Your task to perform on an android device: turn on improve location accuracy Image 0: 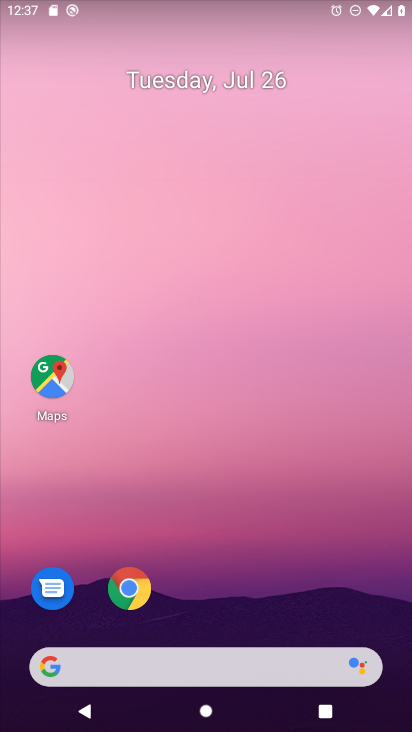
Step 0: drag from (262, 619) to (256, 63)
Your task to perform on an android device: turn on improve location accuracy Image 1: 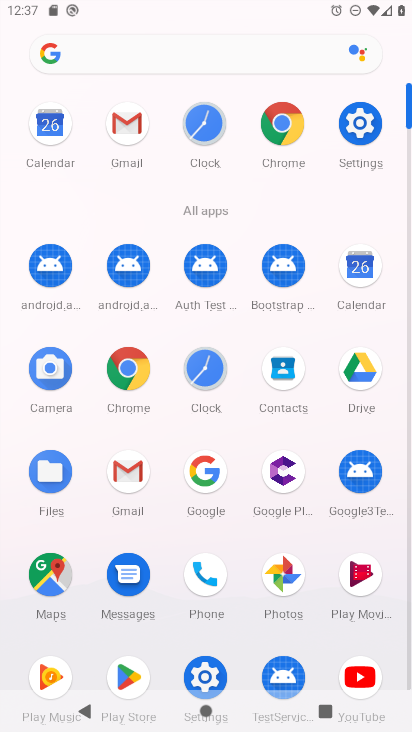
Step 1: click (355, 127)
Your task to perform on an android device: turn on improve location accuracy Image 2: 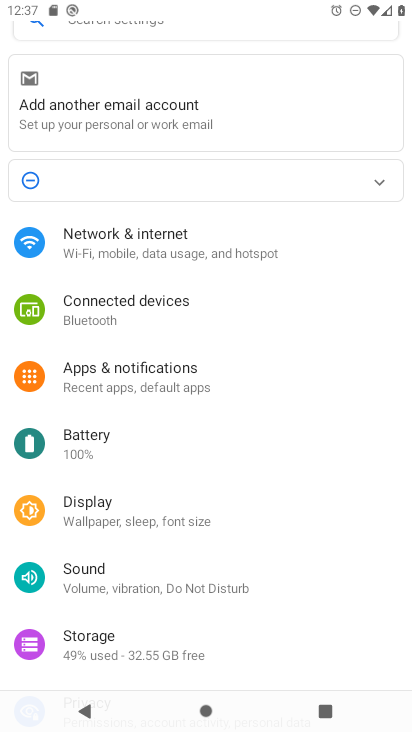
Step 2: drag from (203, 611) to (174, 218)
Your task to perform on an android device: turn on improve location accuracy Image 3: 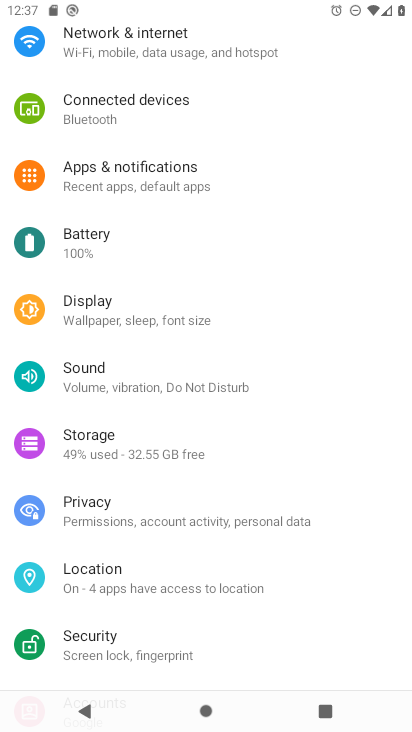
Step 3: click (152, 576)
Your task to perform on an android device: turn on improve location accuracy Image 4: 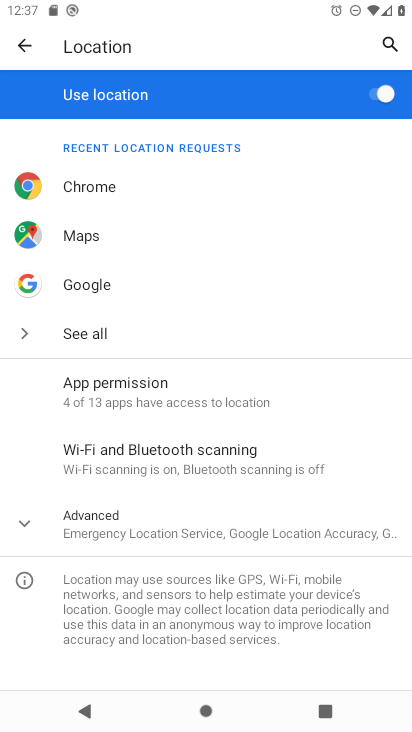
Step 4: click (288, 534)
Your task to perform on an android device: turn on improve location accuracy Image 5: 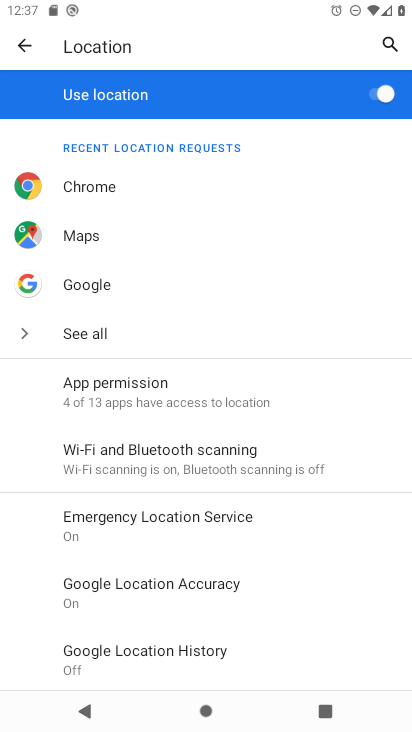
Step 5: click (256, 583)
Your task to perform on an android device: turn on improve location accuracy Image 6: 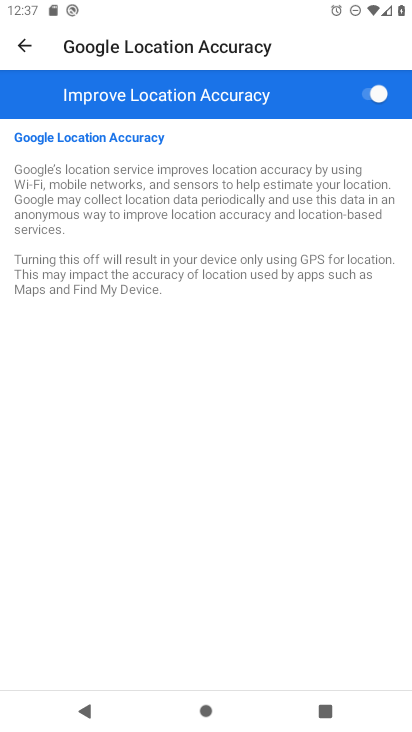
Step 6: task complete